Your task to perform on an android device: Open location settings Image 0: 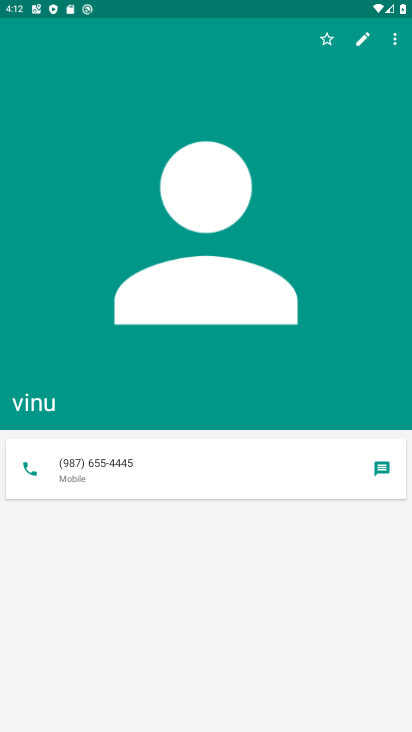
Step 0: press home button
Your task to perform on an android device: Open location settings Image 1: 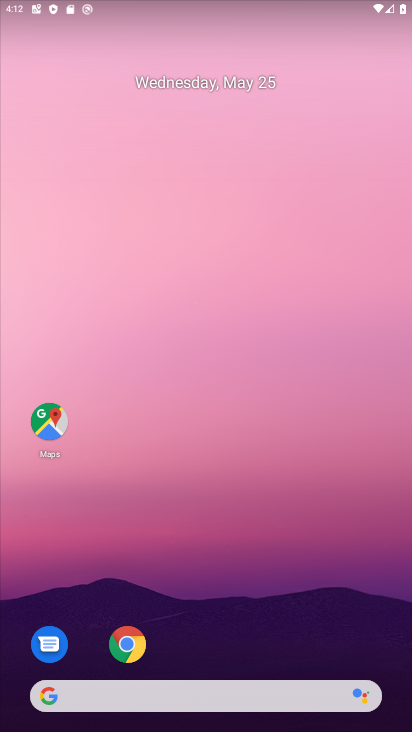
Step 1: drag from (255, 662) to (294, 0)
Your task to perform on an android device: Open location settings Image 2: 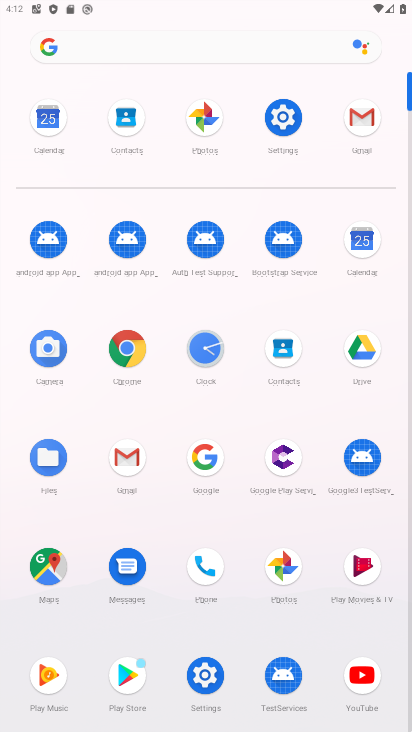
Step 2: click (281, 115)
Your task to perform on an android device: Open location settings Image 3: 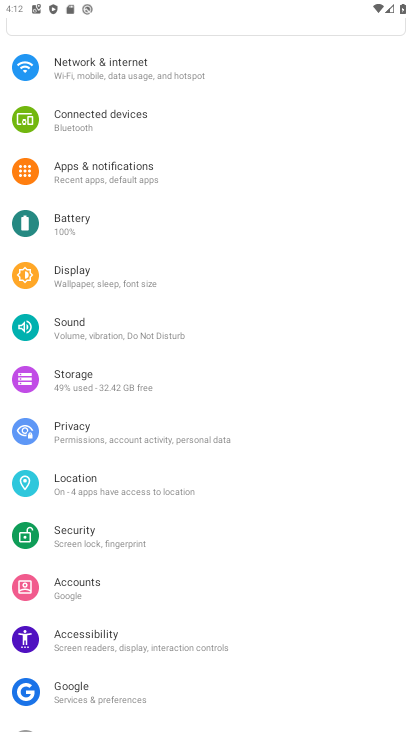
Step 3: click (70, 487)
Your task to perform on an android device: Open location settings Image 4: 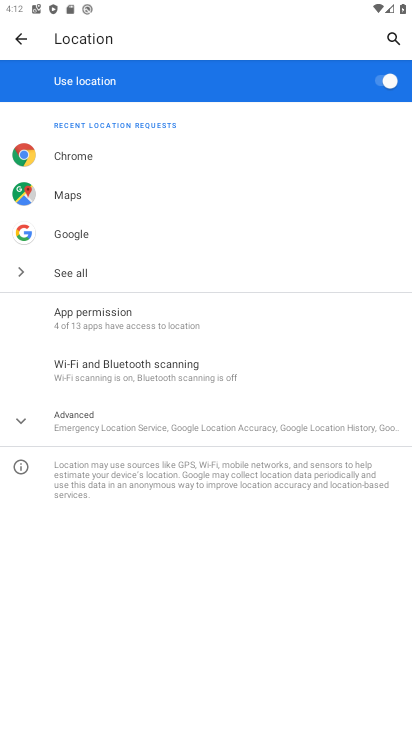
Step 4: task complete